Your task to perform on an android device: snooze an email in the gmail app Image 0: 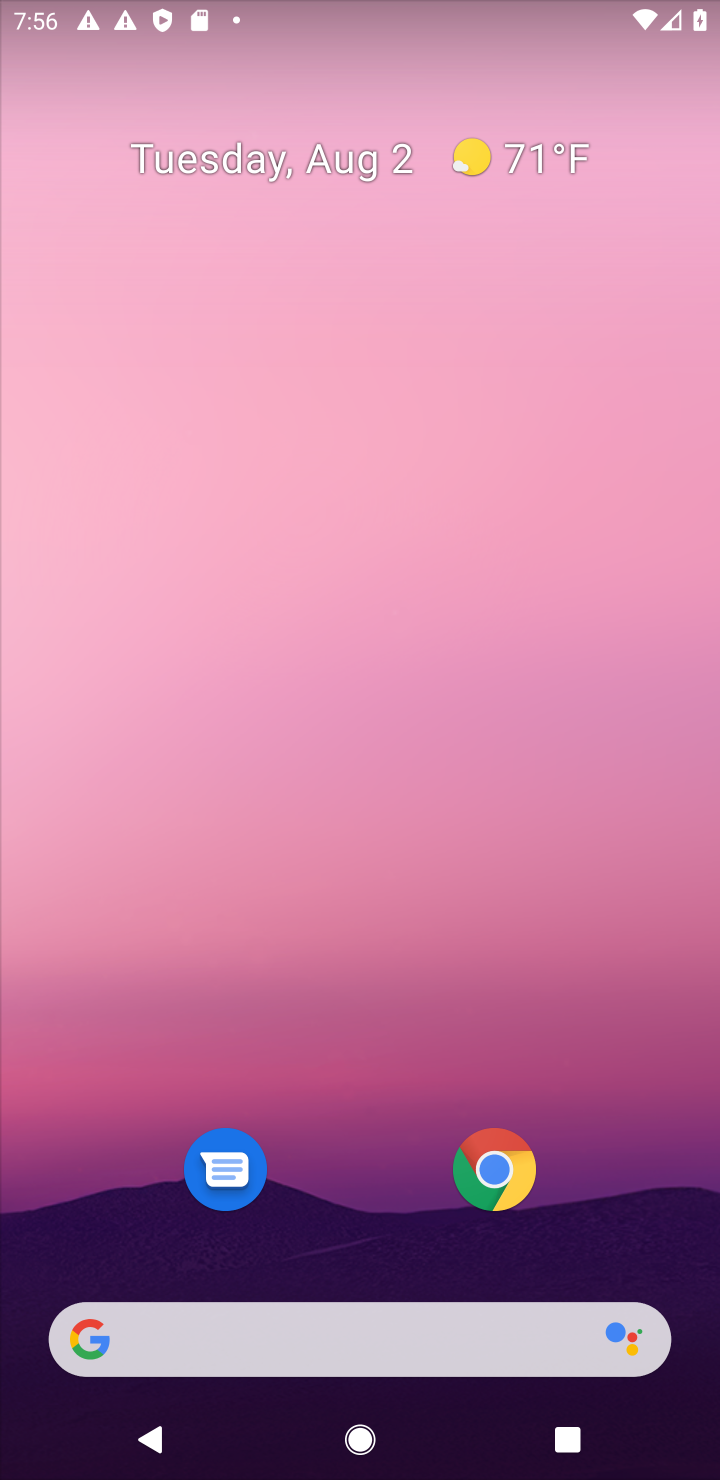
Step 0: drag from (397, 1084) to (435, 159)
Your task to perform on an android device: snooze an email in the gmail app Image 1: 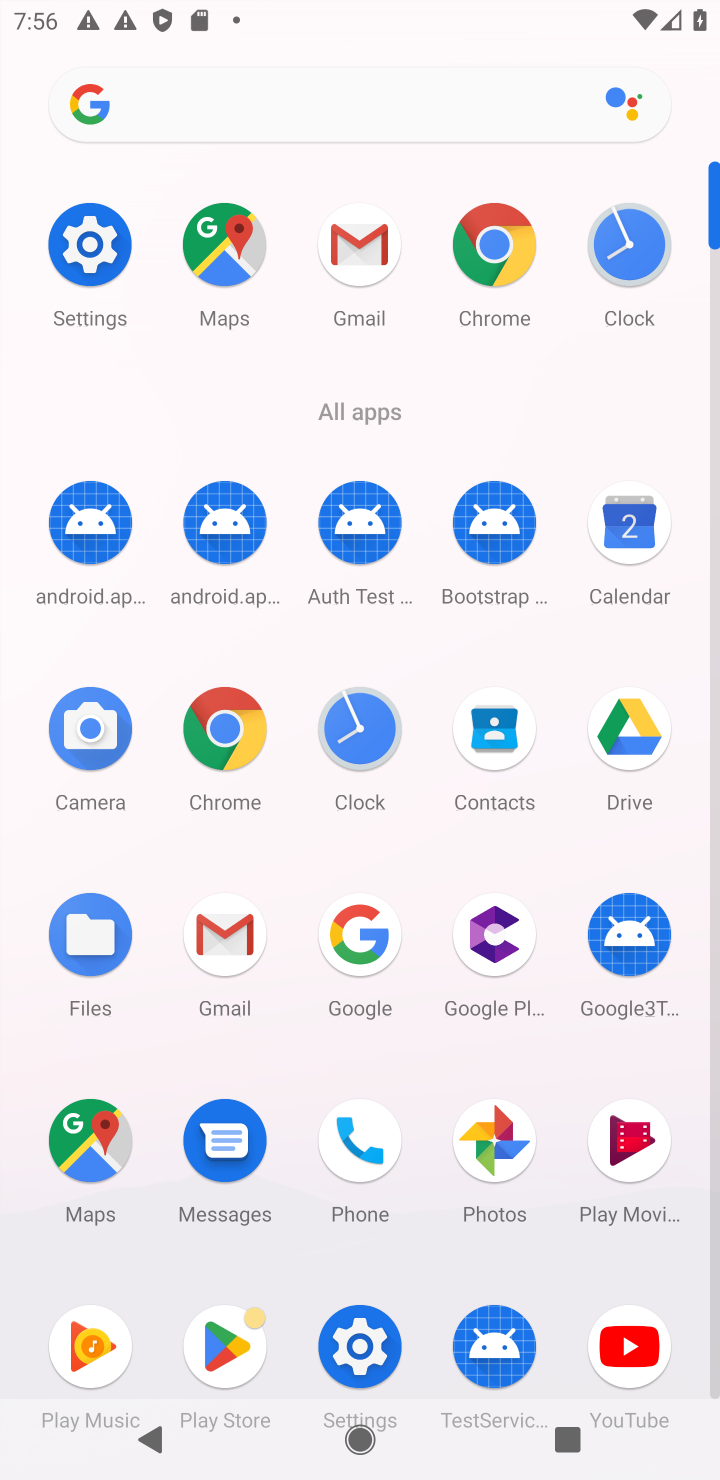
Step 1: click (361, 258)
Your task to perform on an android device: snooze an email in the gmail app Image 2: 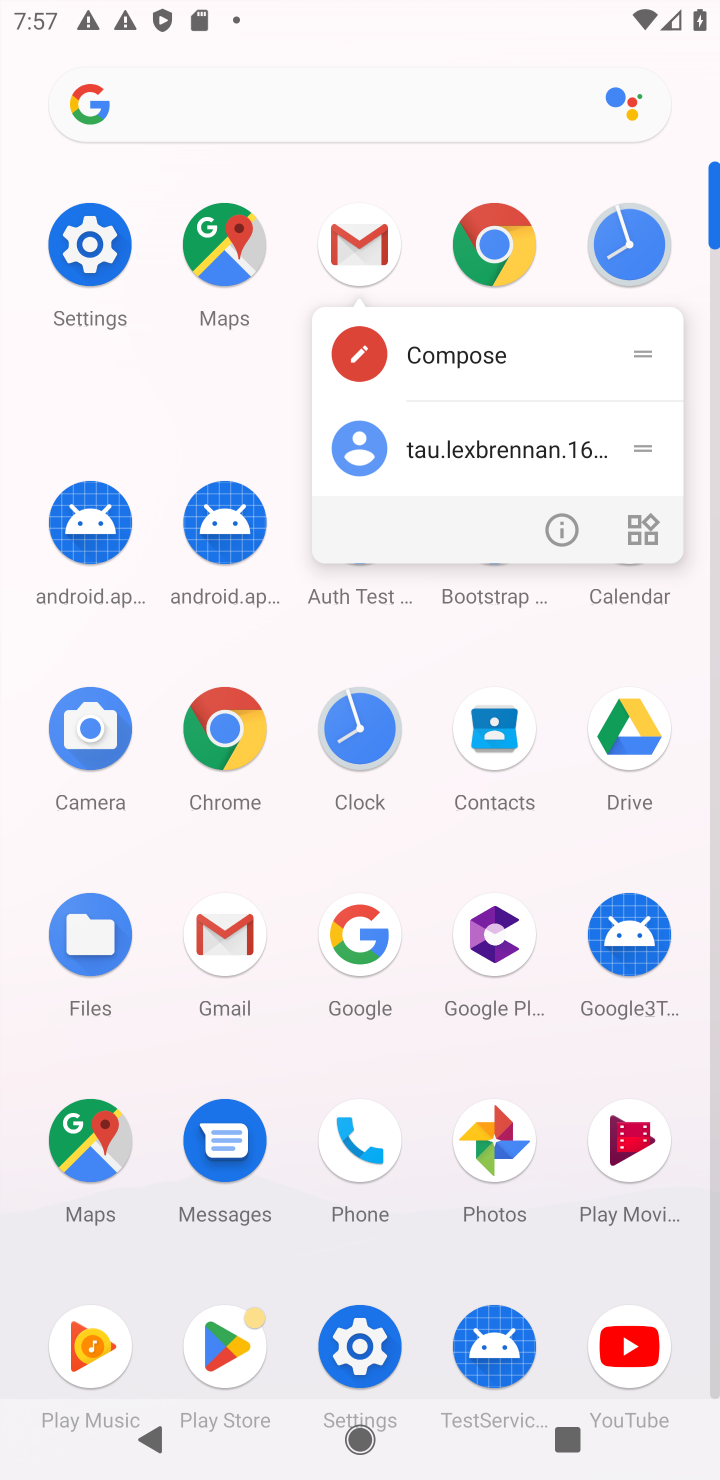
Step 2: click (361, 261)
Your task to perform on an android device: snooze an email in the gmail app Image 3: 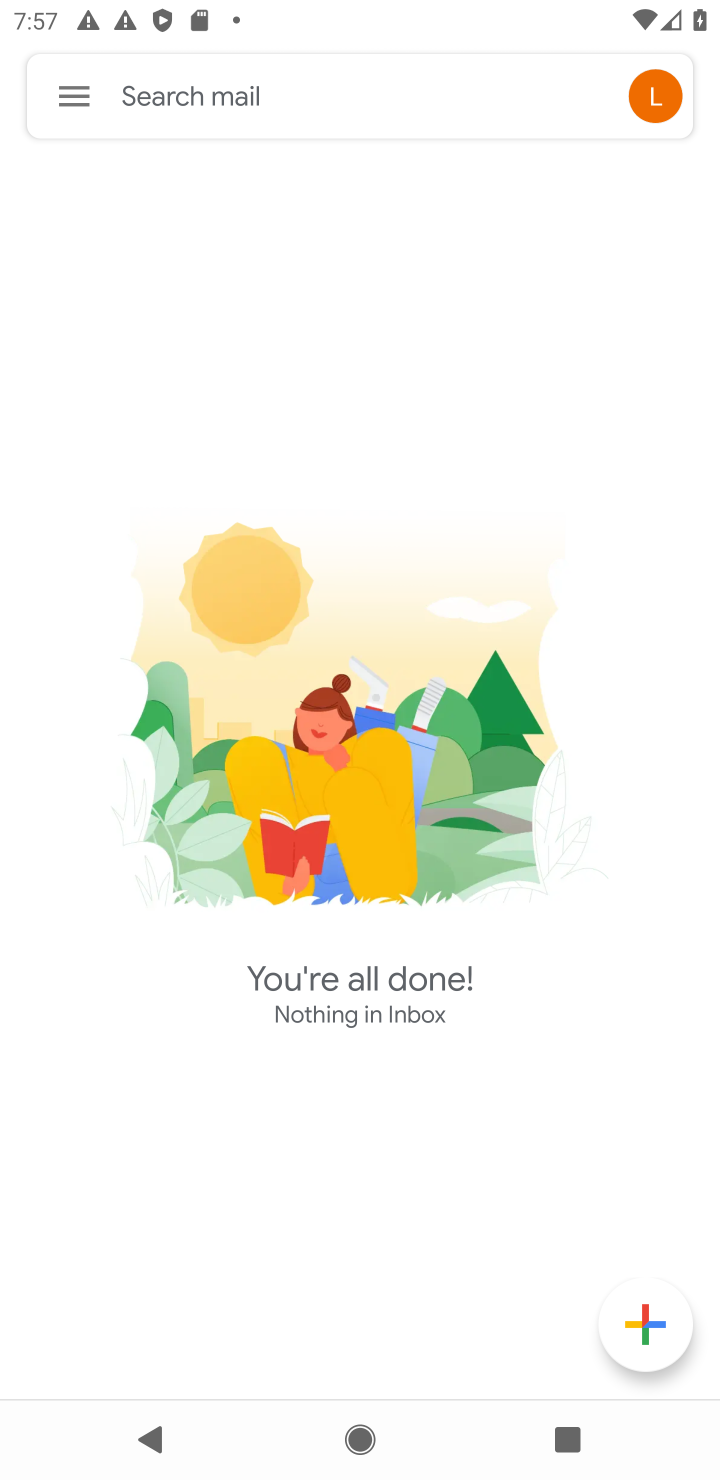
Step 3: task complete